Your task to perform on an android device: Open the phone app and click the voicemail tab. Image 0: 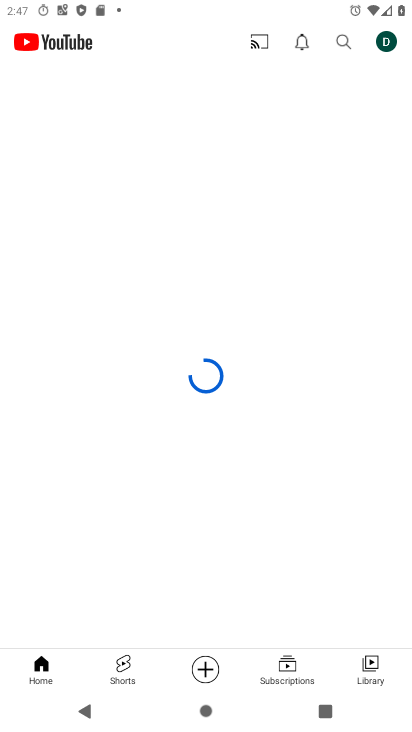
Step 0: press home button
Your task to perform on an android device: Open the phone app and click the voicemail tab. Image 1: 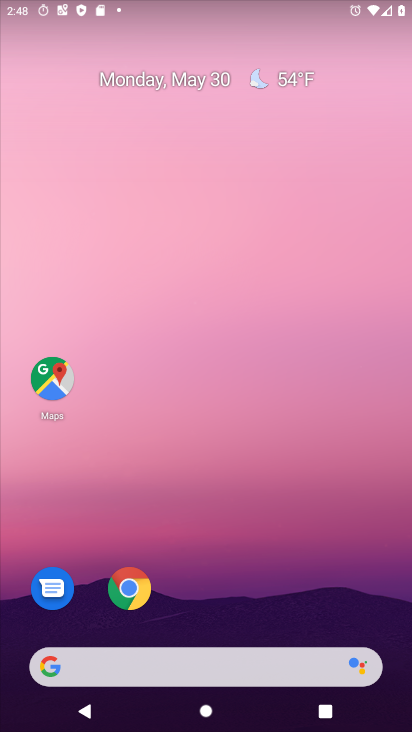
Step 1: drag from (244, 591) to (272, 69)
Your task to perform on an android device: Open the phone app and click the voicemail tab. Image 2: 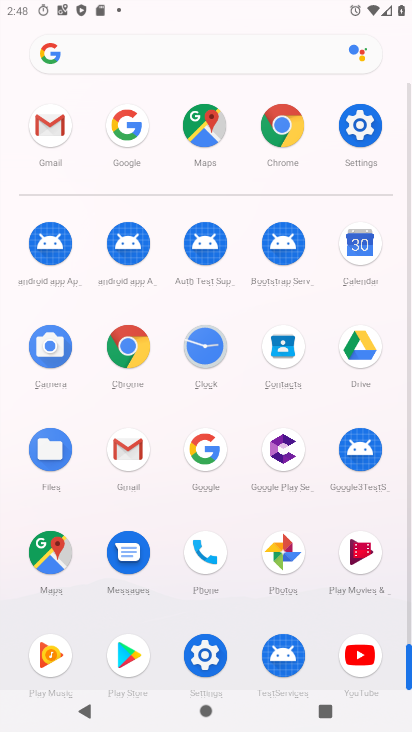
Step 2: click (213, 549)
Your task to perform on an android device: Open the phone app and click the voicemail tab. Image 3: 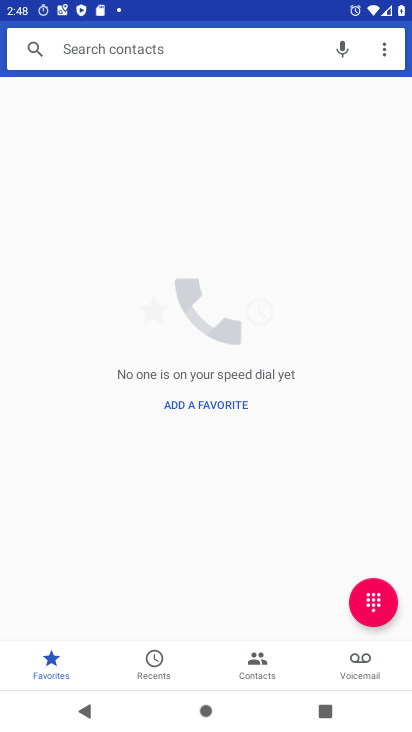
Step 3: click (364, 665)
Your task to perform on an android device: Open the phone app and click the voicemail tab. Image 4: 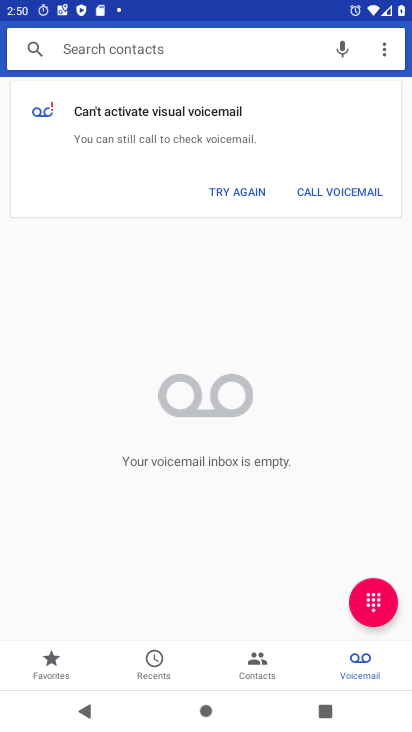
Step 4: task complete